Your task to perform on an android device: create a new album in the google photos Image 0: 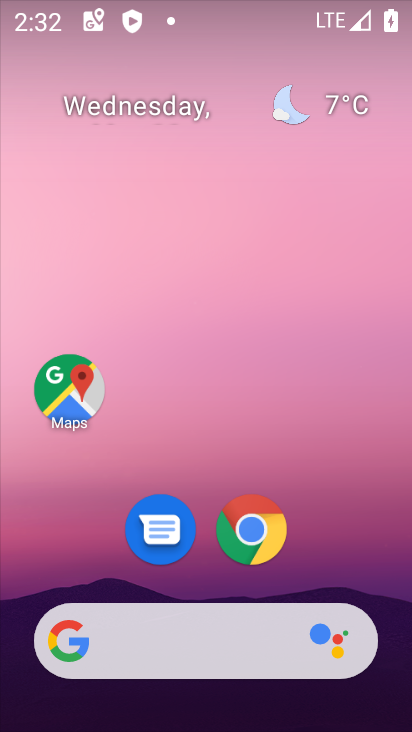
Step 0: drag from (346, 414) to (332, 0)
Your task to perform on an android device: create a new album in the google photos Image 1: 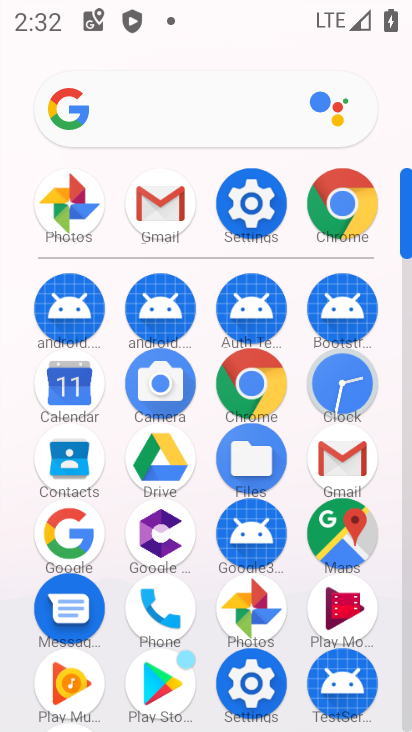
Step 1: click (79, 211)
Your task to perform on an android device: create a new album in the google photos Image 2: 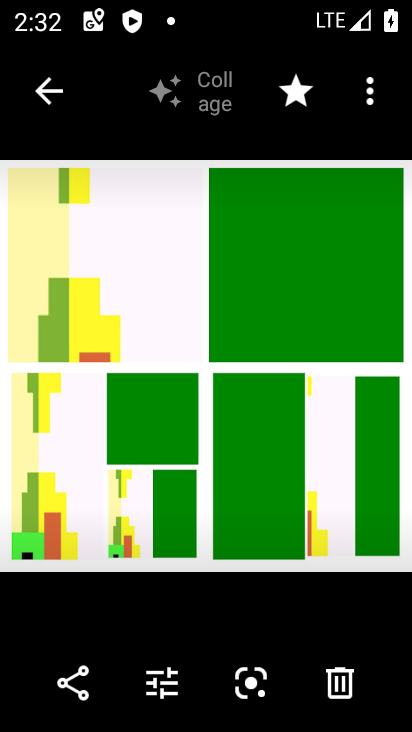
Step 2: click (58, 99)
Your task to perform on an android device: create a new album in the google photos Image 3: 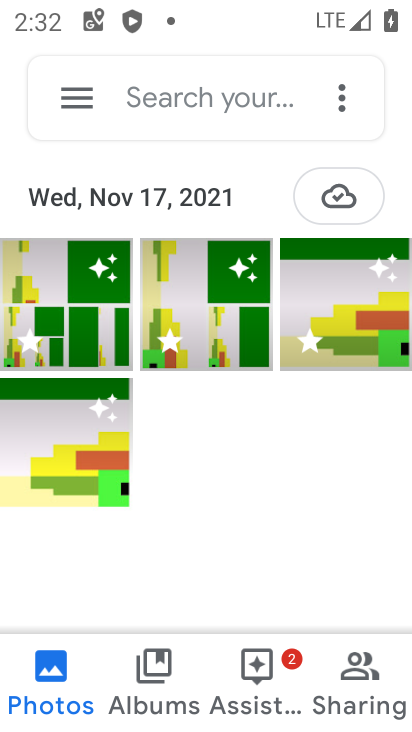
Step 3: click (152, 678)
Your task to perform on an android device: create a new album in the google photos Image 4: 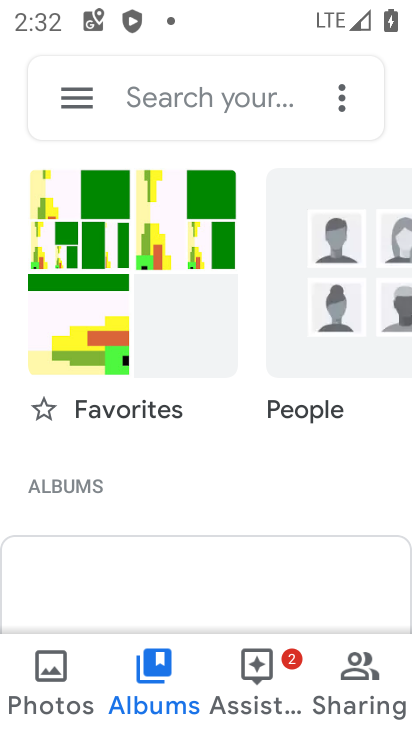
Step 4: drag from (201, 553) to (220, 175)
Your task to perform on an android device: create a new album in the google photos Image 5: 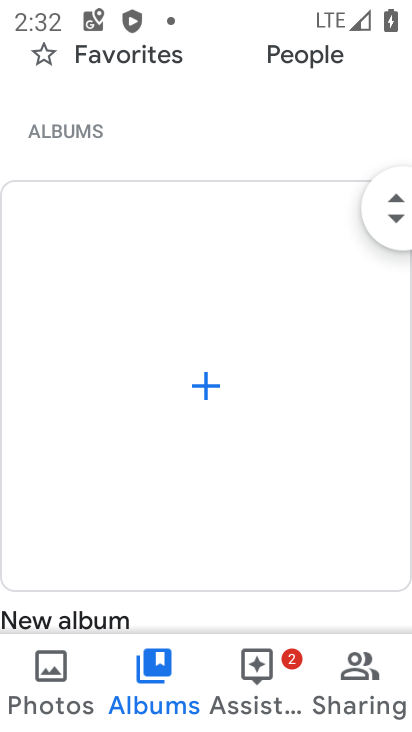
Step 5: click (195, 381)
Your task to perform on an android device: create a new album in the google photos Image 6: 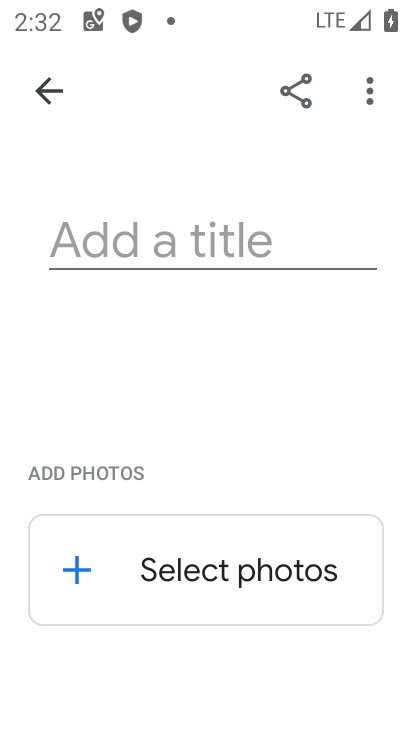
Step 6: click (171, 228)
Your task to perform on an android device: create a new album in the google photos Image 7: 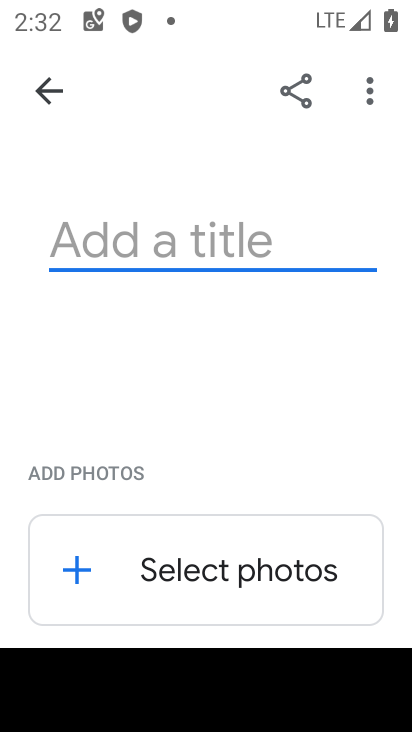
Step 7: type "part"
Your task to perform on an android device: create a new album in the google photos Image 8: 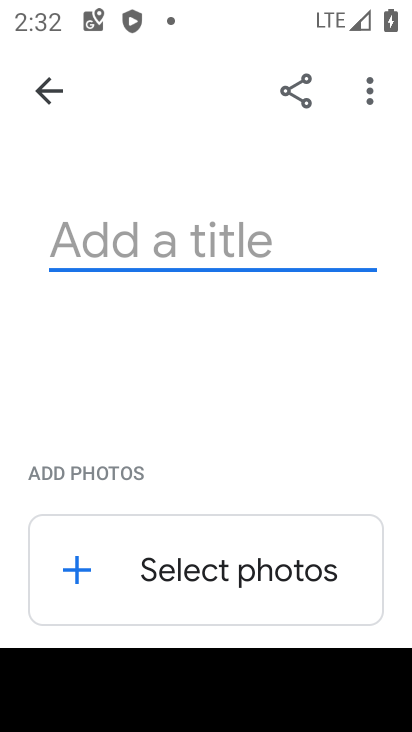
Step 8: click (300, 559)
Your task to perform on an android device: create a new album in the google photos Image 9: 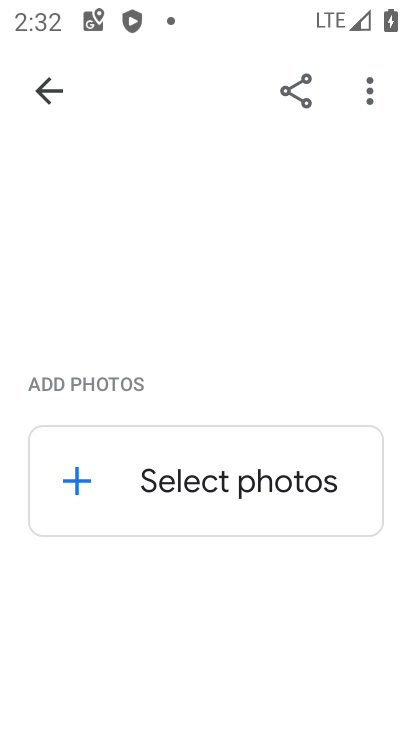
Step 9: click (271, 473)
Your task to perform on an android device: create a new album in the google photos Image 10: 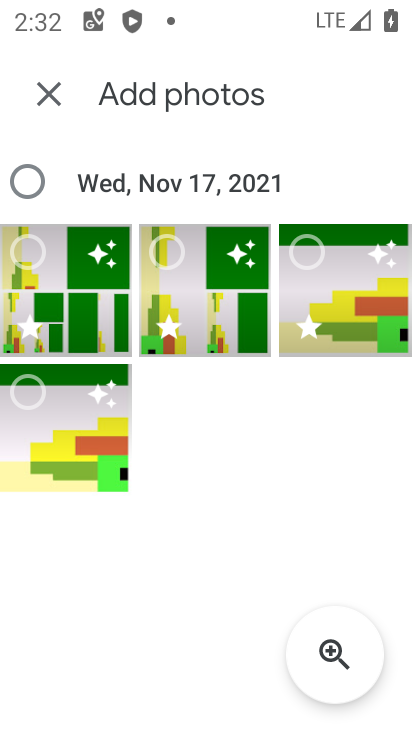
Step 10: click (16, 245)
Your task to perform on an android device: create a new album in the google photos Image 11: 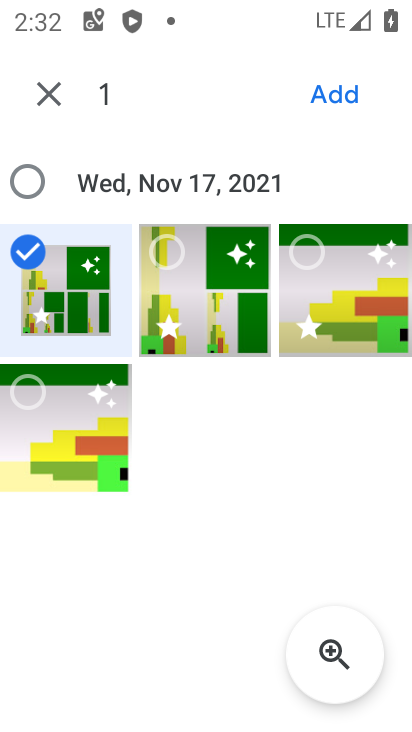
Step 11: click (172, 257)
Your task to perform on an android device: create a new album in the google photos Image 12: 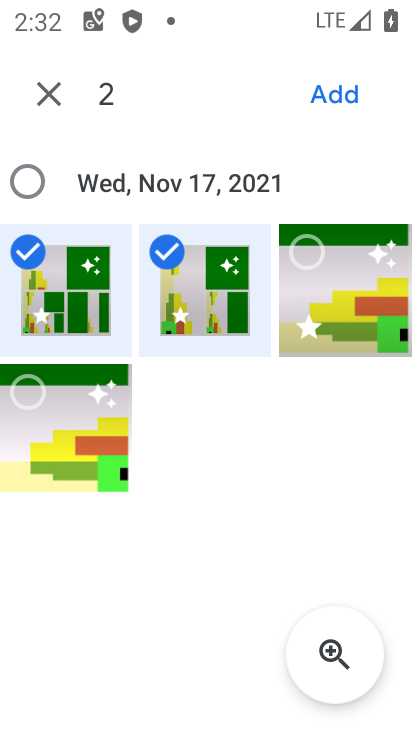
Step 12: click (295, 259)
Your task to perform on an android device: create a new album in the google photos Image 13: 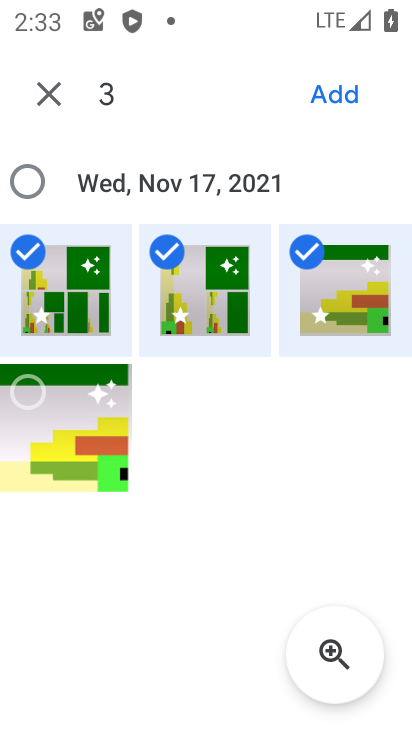
Step 13: click (51, 396)
Your task to perform on an android device: create a new album in the google photos Image 14: 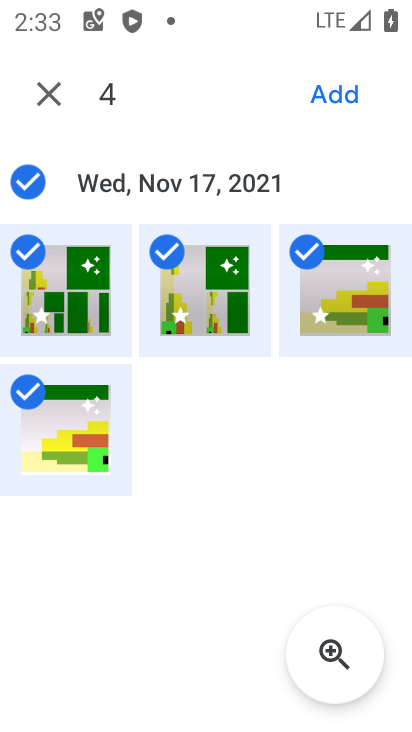
Step 14: click (354, 95)
Your task to perform on an android device: create a new album in the google photos Image 15: 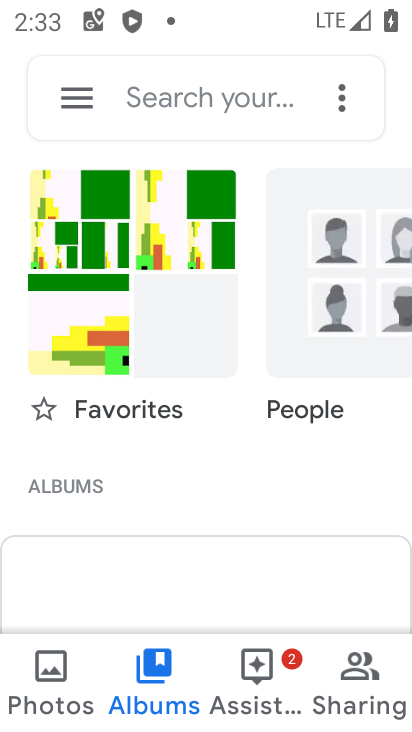
Step 15: task complete